Your task to perform on an android device: delete the emails in spam in the gmail app Image 0: 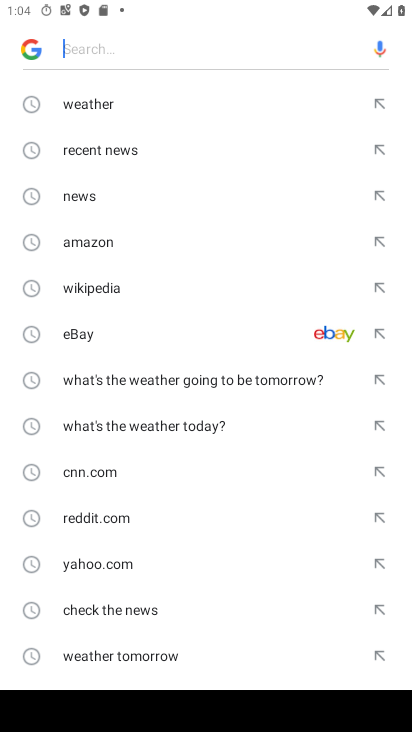
Step 0: press home button
Your task to perform on an android device: delete the emails in spam in the gmail app Image 1: 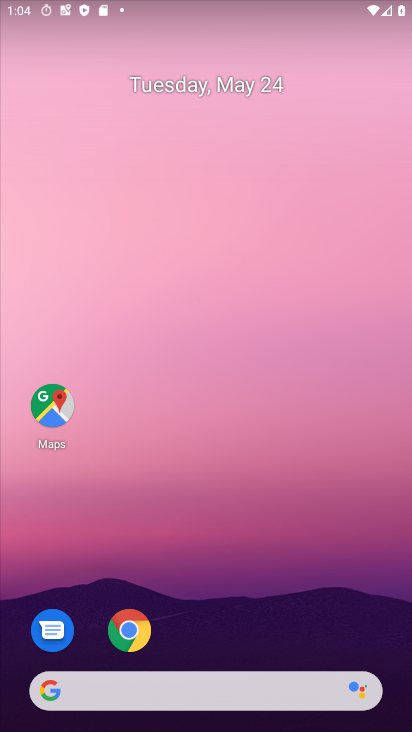
Step 1: drag from (233, 656) to (247, 3)
Your task to perform on an android device: delete the emails in spam in the gmail app Image 2: 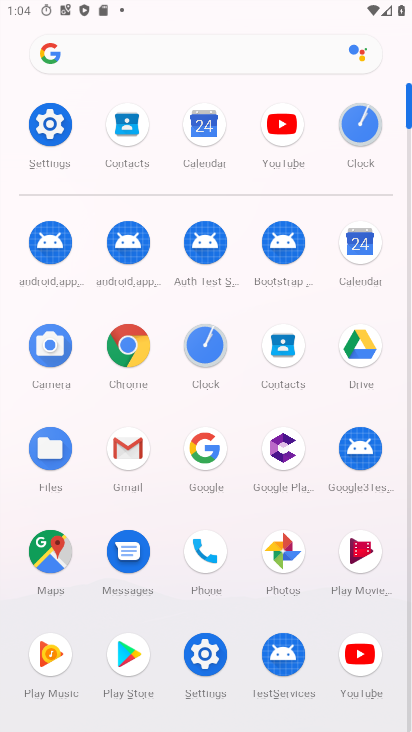
Step 2: click (127, 451)
Your task to perform on an android device: delete the emails in spam in the gmail app Image 3: 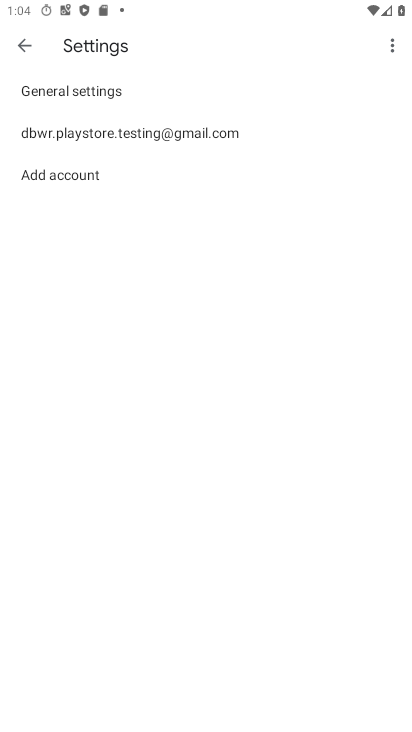
Step 3: click (21, 44)
Your task to perform on an android device: delete the emails in spam in the gmail app Image 4: 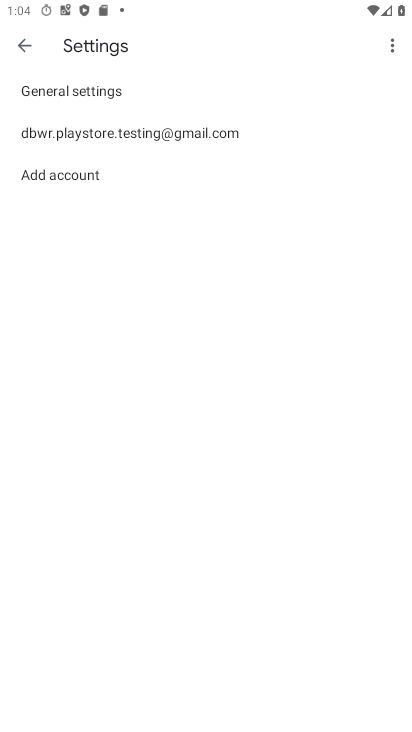
Step 4: click (21, 44)
Your task to perform on an android device: delete the emails in spam in the gmail app Image 5: 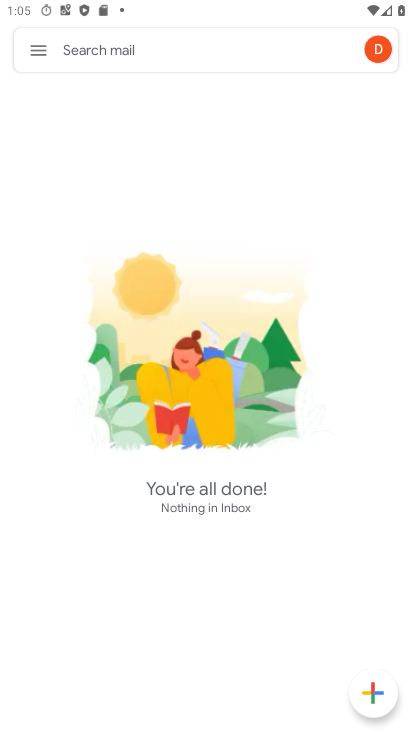
Step 5: click (41, 46)
Your task to perform on an android device: delete the emails in spam in the gmail app Image 6: 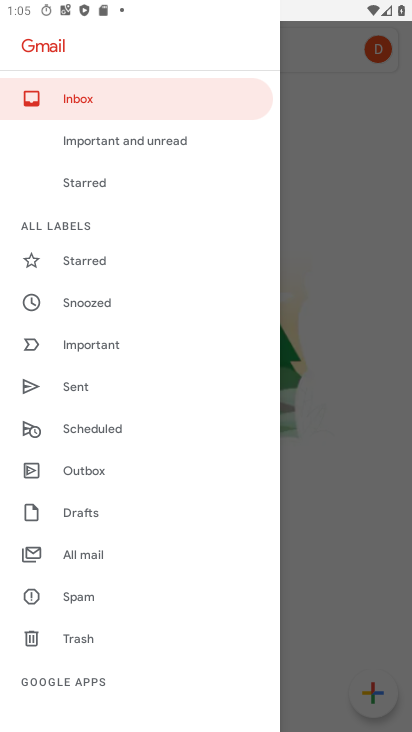
Step 6: click (75, 599)
Your task to perform on an android device: delete the emails in spam in the gmail app Image 7: 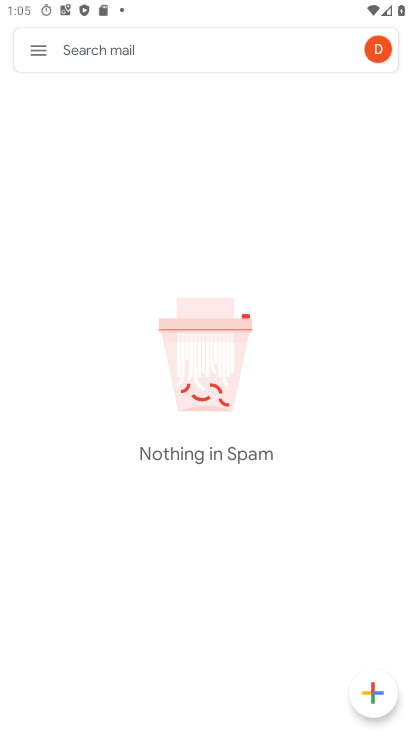
Step 7: task complete